Your task to perform on an android device: Go to Yahoo.com Image 0: 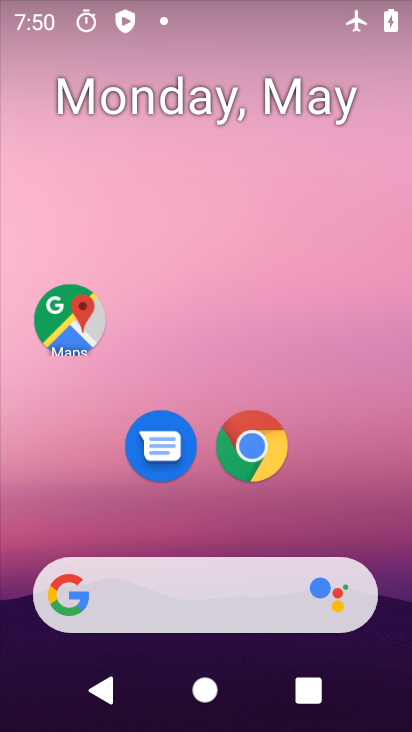
Step 0: click (247, 463)
Your task to perform on an android device: Go to Yahoo.com Image 1: 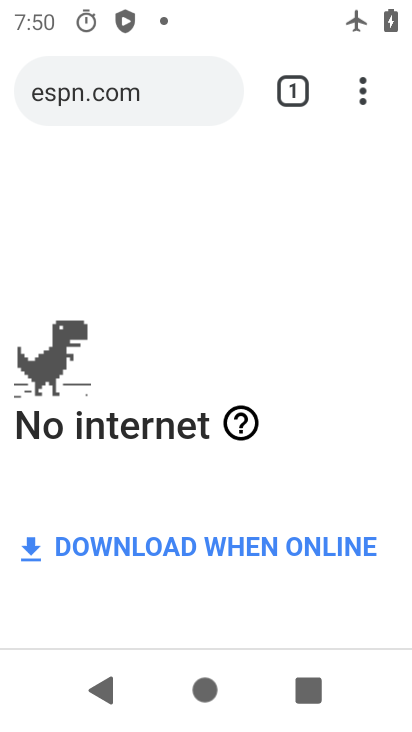
Step 1: click (62, 103)
Your task to perform on an android device: Go to Yahoo.com Image 2: 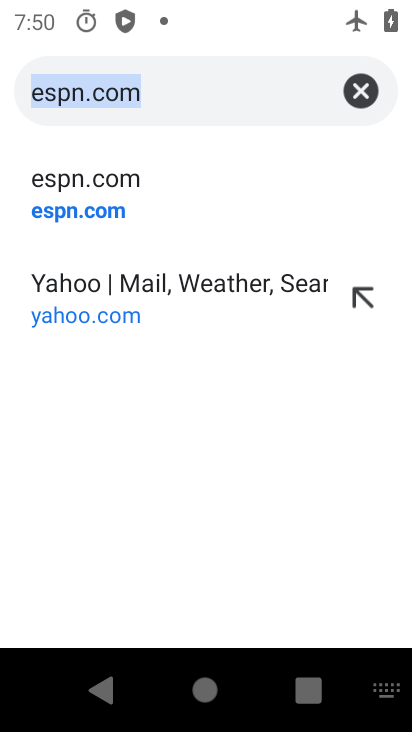
Step 2: click (72, 318)
Your task to perform on an android device: Go to Yahoo.com Image 3: 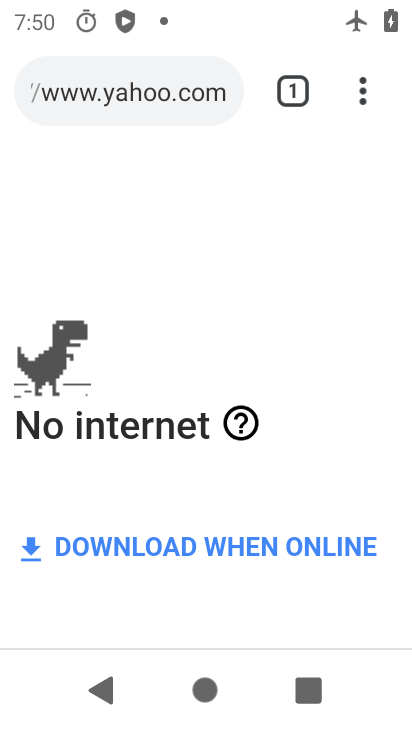
Step 3: task complete